Your task to perform on an android device: Search for Mexican restaurants on Maps Image 0: 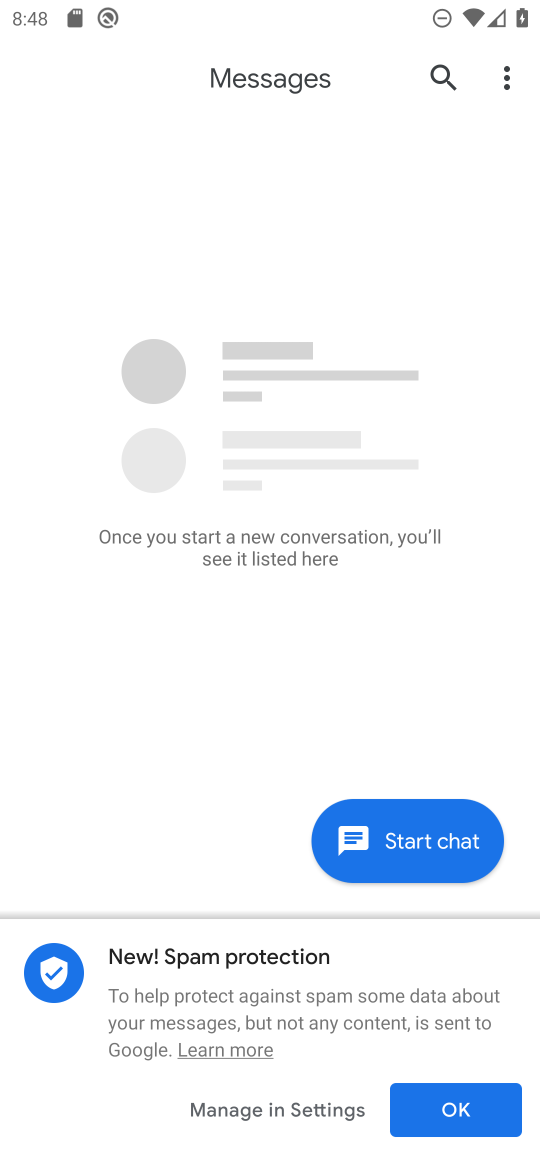
Step 0: press home button
Your task to perform on an android device: Search for Mexican restaurants on Maps Image 1: 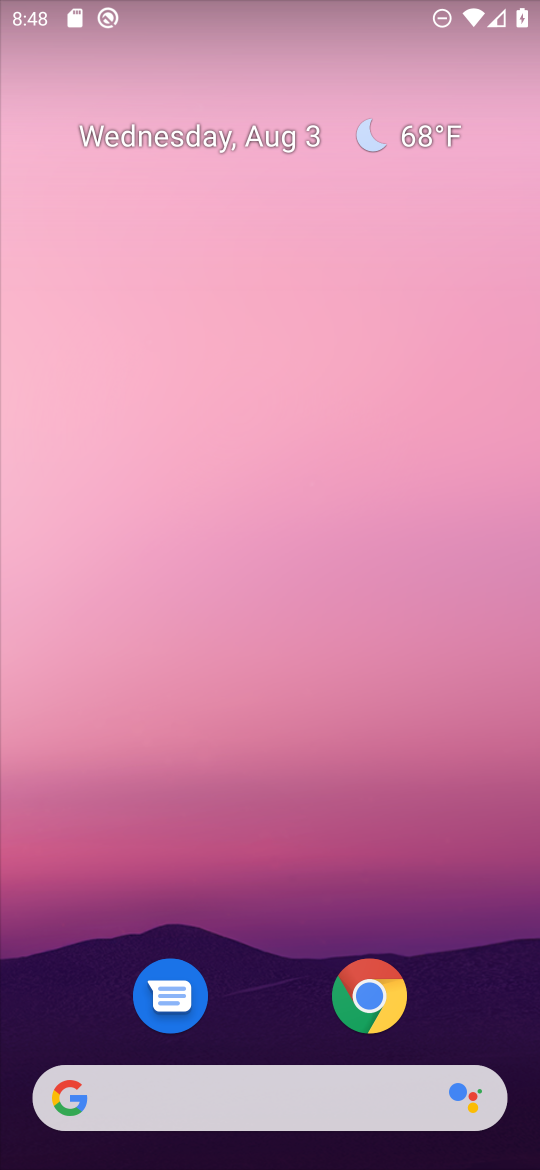
Step 1: drag from (289, 909) to (335, 30)
Your task to perform on an android device: Search for Mexican restaurants on Maps Image 2: 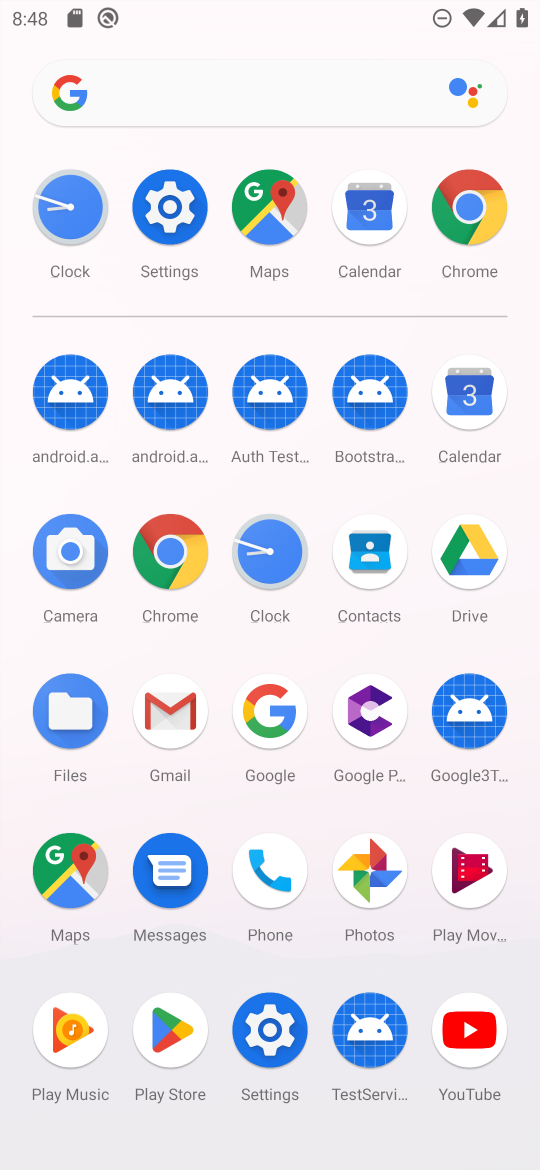
Step 2: click (270, 216)
Your task to perform on an android device: Search for Mexican restaurants on Maps Image 3: 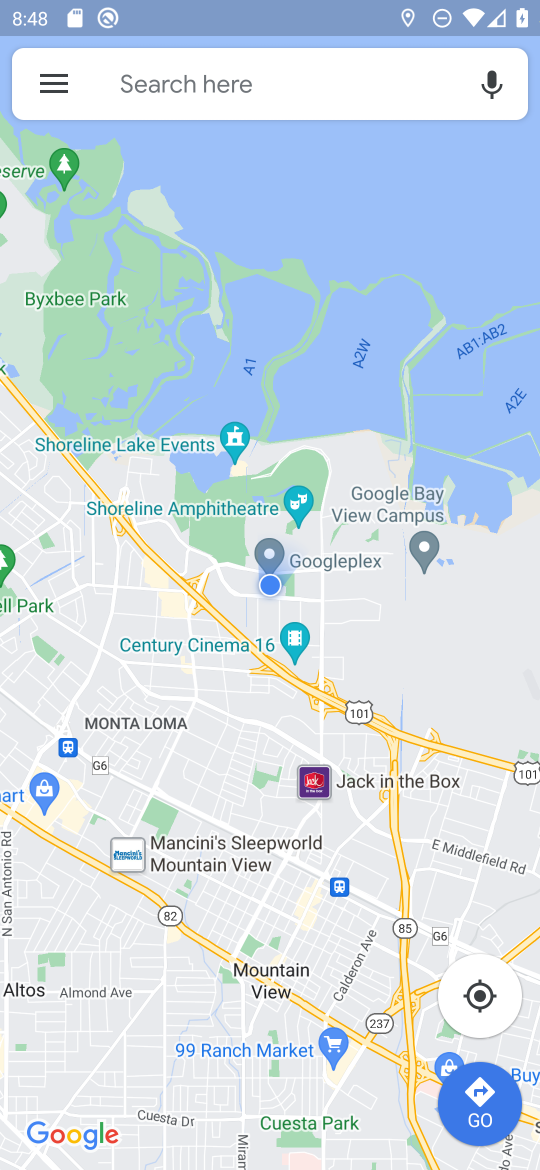
Step 3: click (289, 89)
Your task to perform on an android device: Search for Mexican restaurants on Maps Image 4: 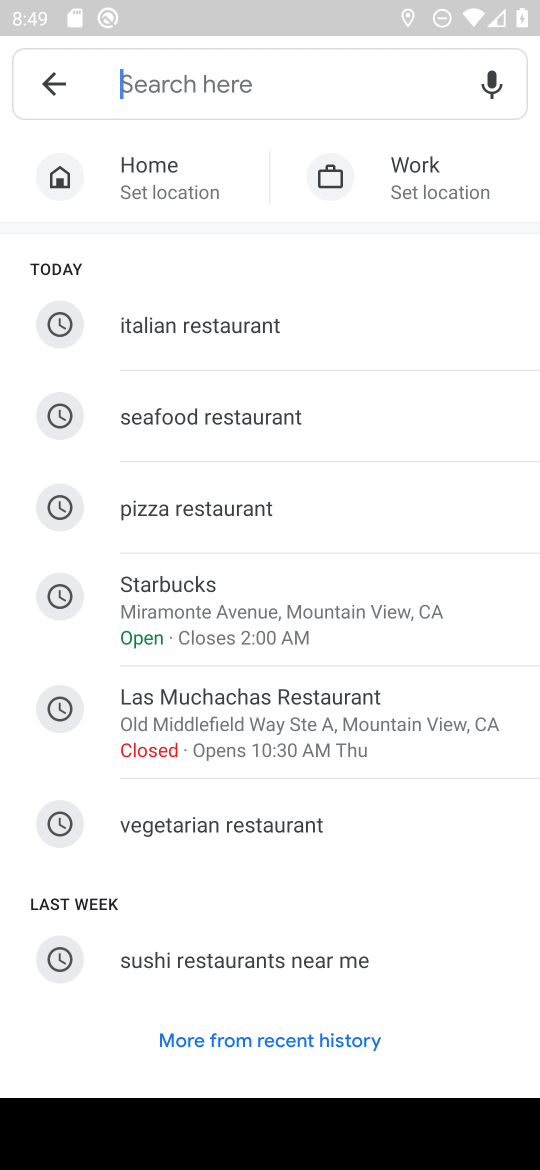
Step 4: type "mexican restaurants"
Your task to perform on an android device: Search for Mexican restaurants on Maps Image 5: 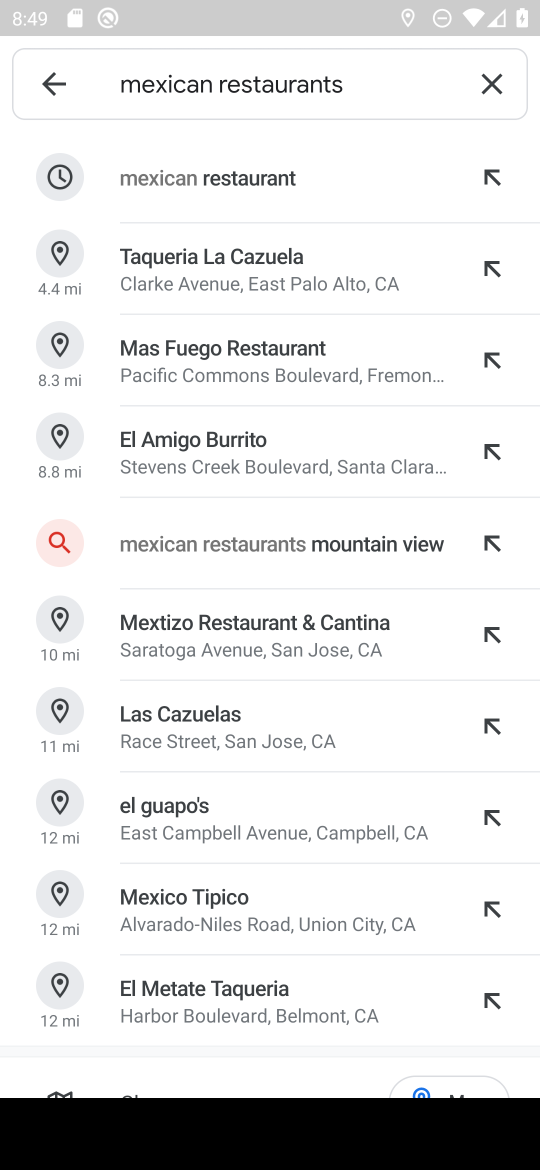
Step 5: click (283, 178)
Your task to perform on an android device: Search for Mexican restaurants on Maps Image 6: 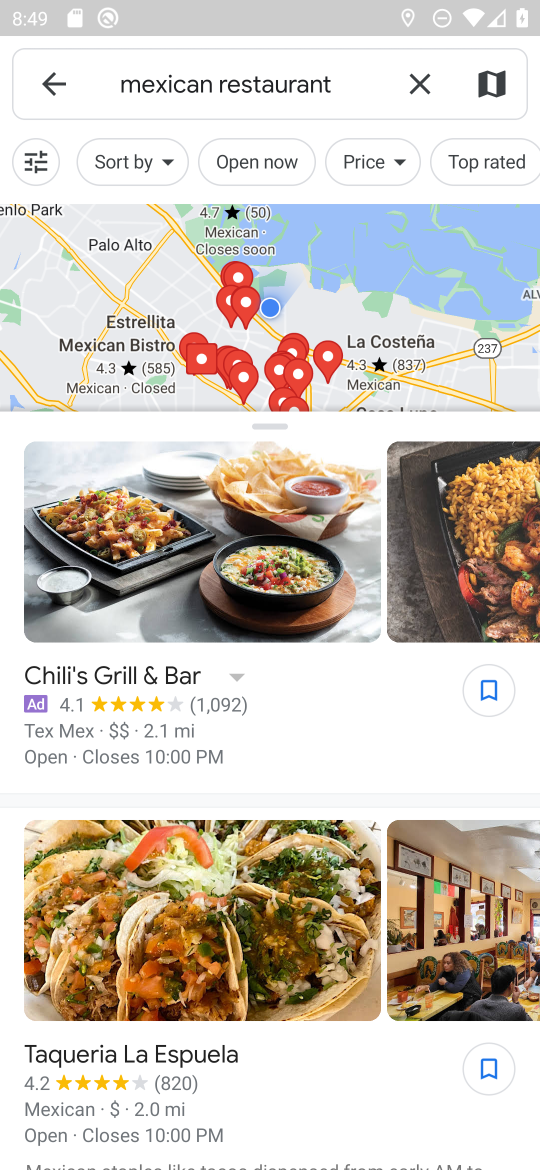
Step 6: task complete